Your task to perform on an android device: turn on bluetooth scan Image 0: 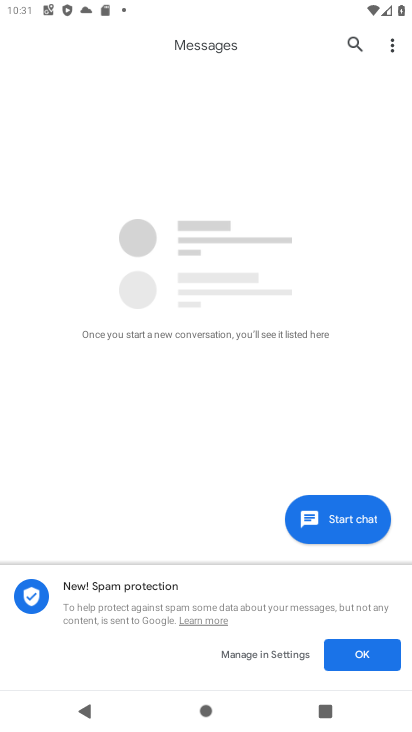
Step 0: press home button
Your task to perform on an android device: turn on bluetooth scan Image 1: 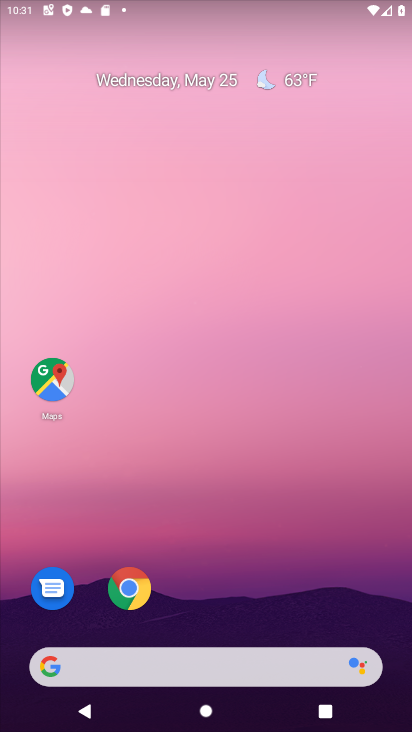
Step 1: drag from (312, 628) to (306, 175)
Your task to perform on an android device: turn on bluetooth scan Image 2: 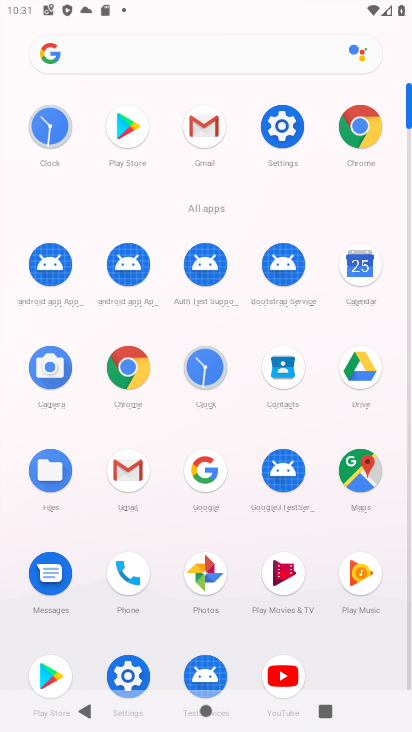
Step 2: click (287, 135)
Your task to perform on an android device: turn on bluetooth scan Image 3: 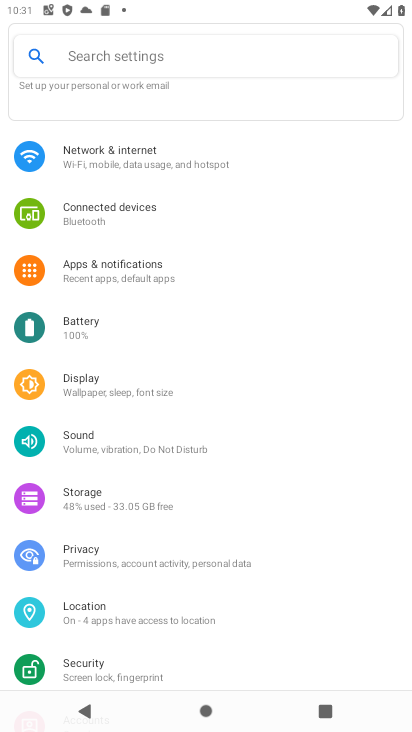
Step 3: click (135, 618)
Your task to perform on an android device: turn on bluetooth scan Image 4: 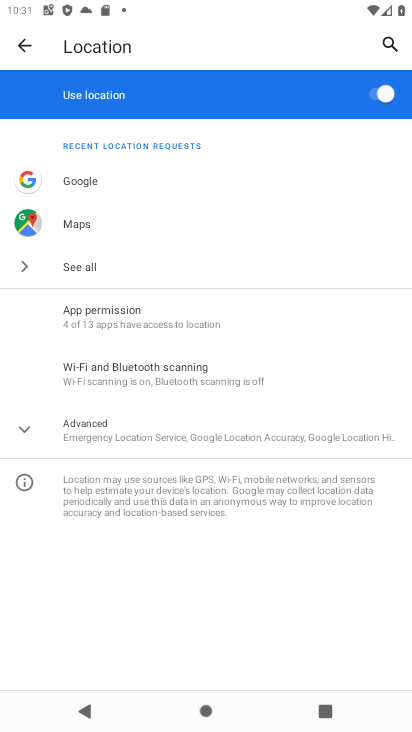
Step 4: click (129, 384)
Your task to perform on an android device: turn on bluetooth scan Image 5: 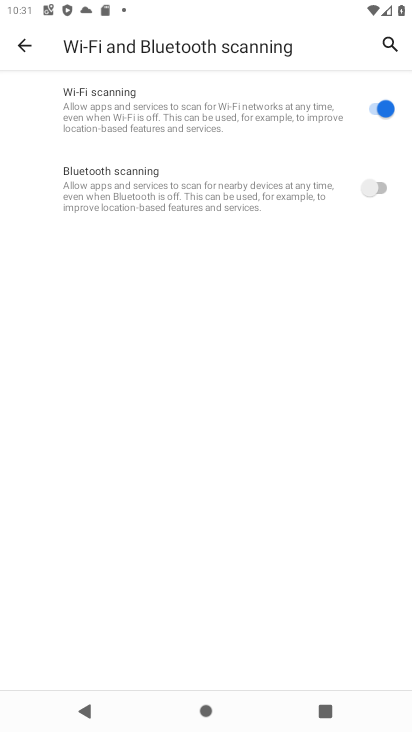
Step 5: click (359, 183)
Your task to perform on an android device: turn on bluetooth scan Image 6: 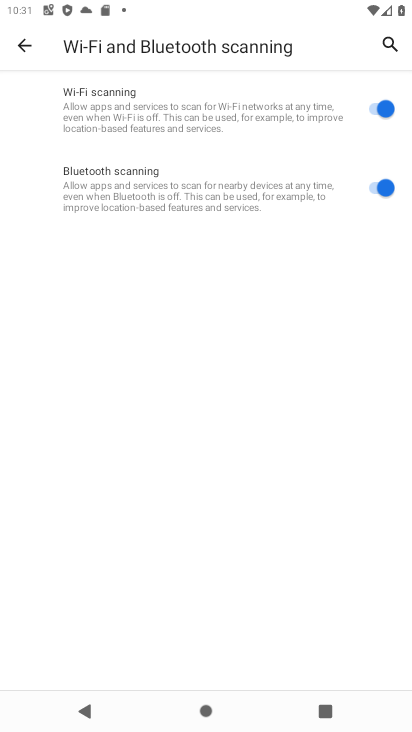
Step 6: task complete